Your task to perform on an android device: Open calendar and show me the third week of next month Image 0: 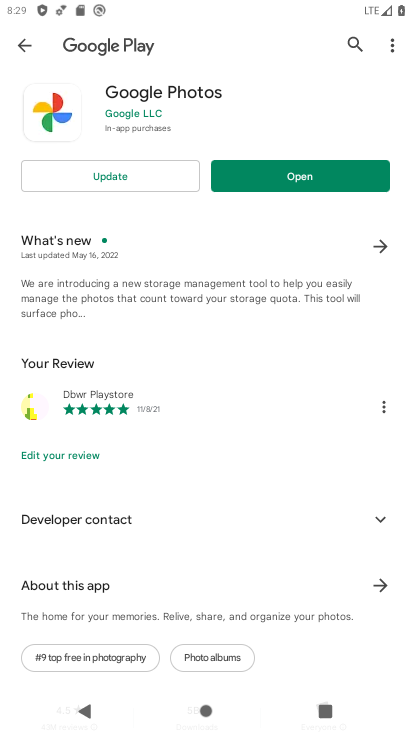
Step 0: press home button
Your task to perform on an android device: Open calendar and show me the third week of next month Image 1: 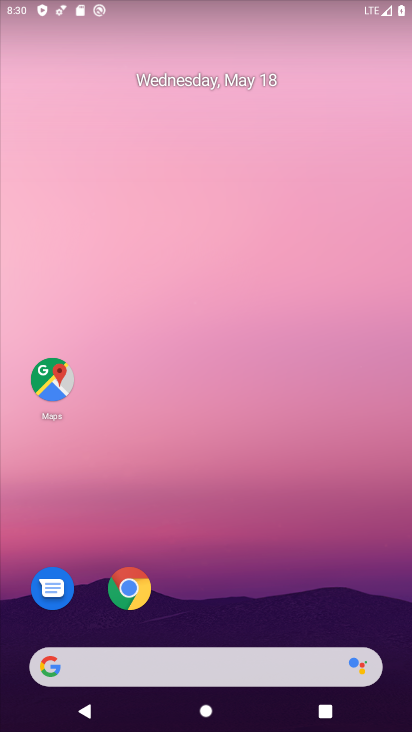
Step 1: drag from (274, 602) to (392, 10)
Your task to perform on an android device: Open calendar and show me the third week of next month Image 2: 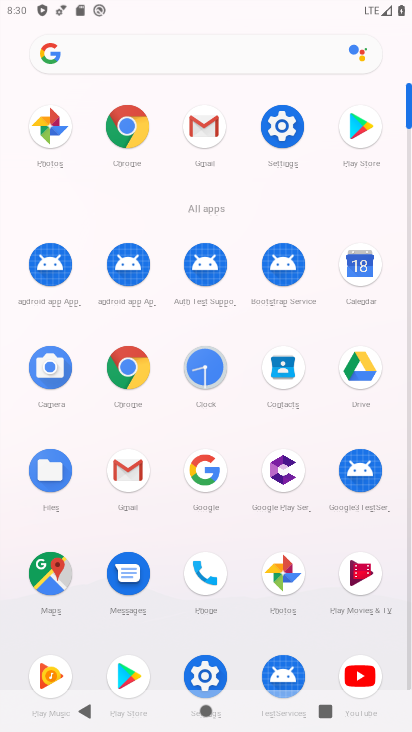
Step 2: click (349, 268)
Your task to perform on an android device: Open calendar and show me the third week of next month Image 3: 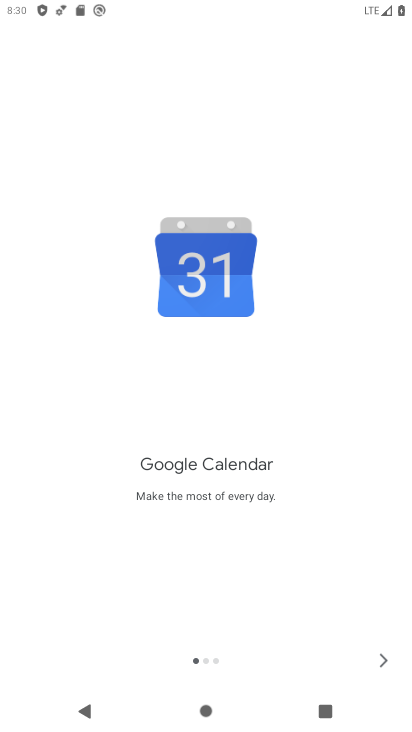
Step 3: click (382, 666)
Your task to perform on an android device: Open calendar and show me the third week of next month Image 4: 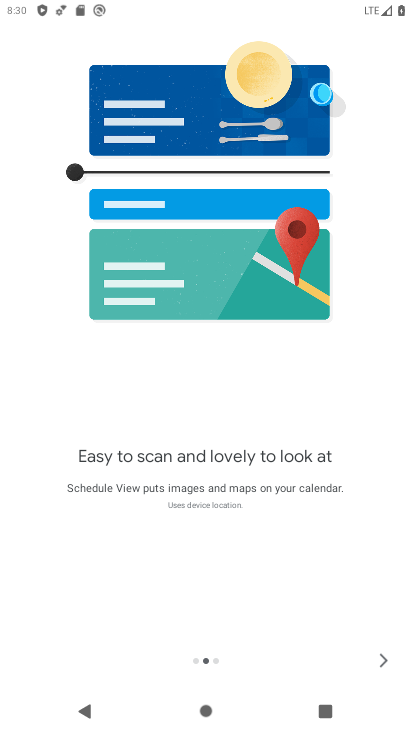
Step 4: click (382, 666)
Your task to perform on an android device: Open calendar and show me the third week of next month Image 5: 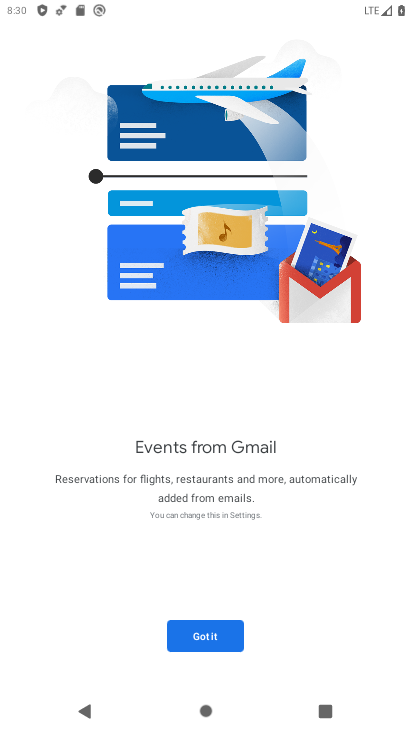
Step 5: click (211, 631)
Your task to perform on an android device: Open calendar and show me the third week of next month Image 6: 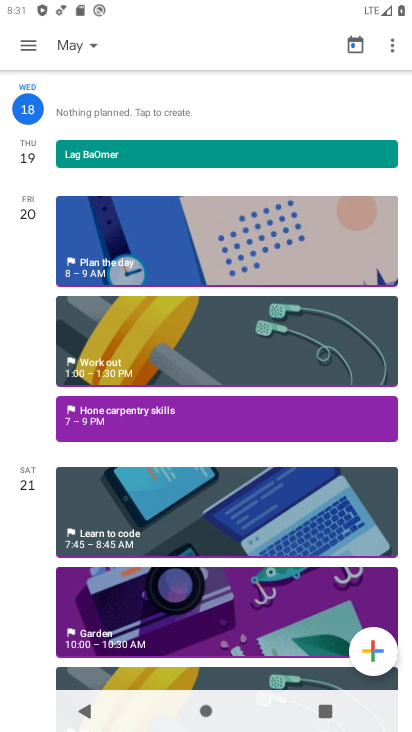
Step 6: click (95, 50)
Your task to perform on an android device: Open calendar and show me the third week of next month Image 7: 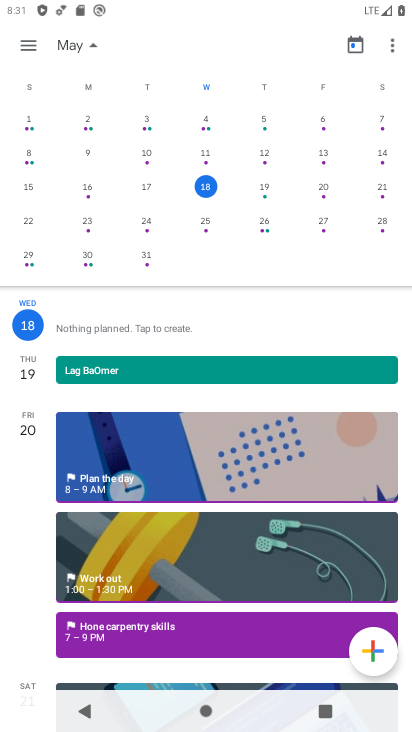
Step 7: drag from (359, 203) to (0, 102)
Your task to perform on an android device: Open calendar and show me the third week of next month Image 8: 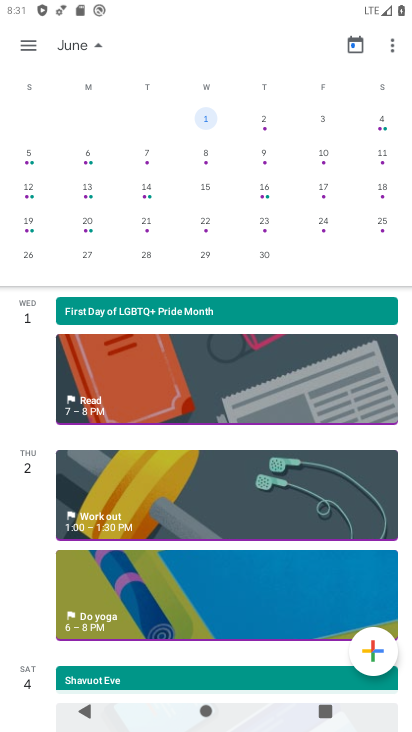
Step 8: click (24, 40)
Your task to perform on an android device: Open calendar and show me the third week of next month Image 9: 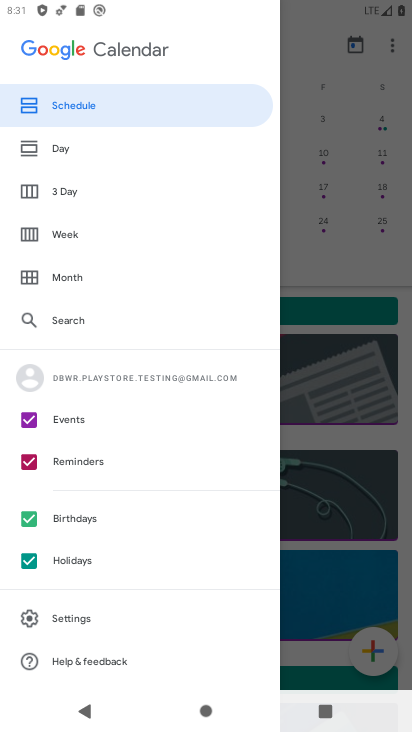
Step 9: click (65, 232)
Your task to perform on an android device: Open calendar and show me the third week of next month Image 10: 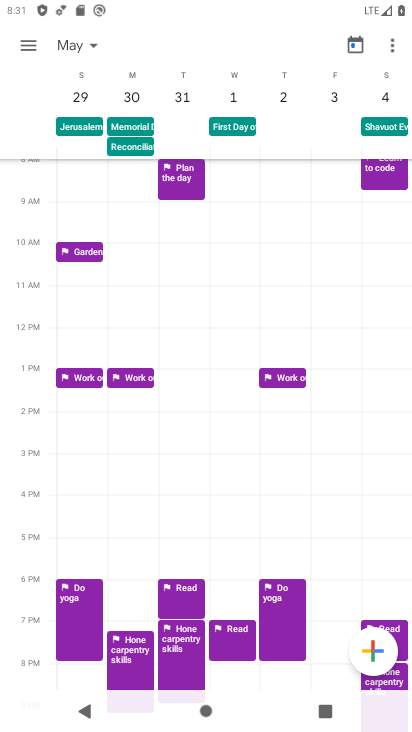
Step 10: task complete